Your task to perform on an android device: Toggle the flashlight Image 0: 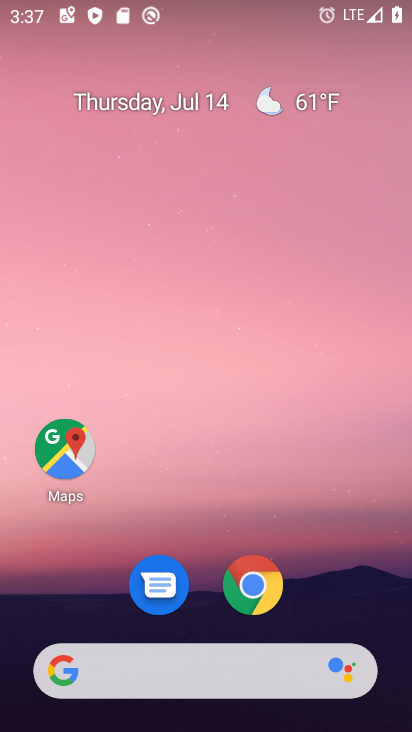
Step 0: drag from (332, 581) to (316, 27)
Your task to perform on an android device: Toggle the flashlight Image 1: 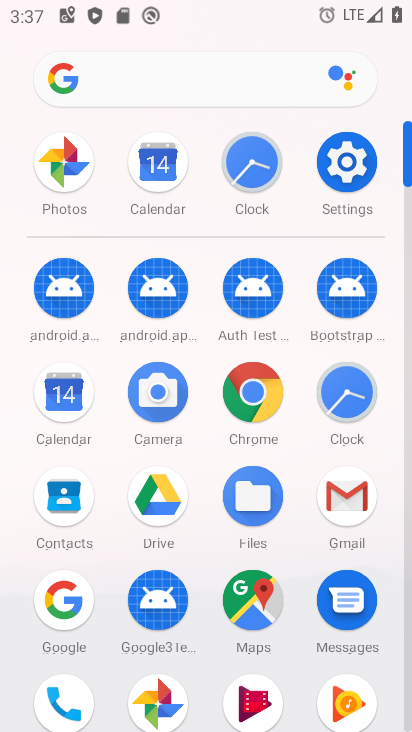
Step 1: click (347, 173)
Your task to perform on an android device: Toggle the flashlight Image 2: 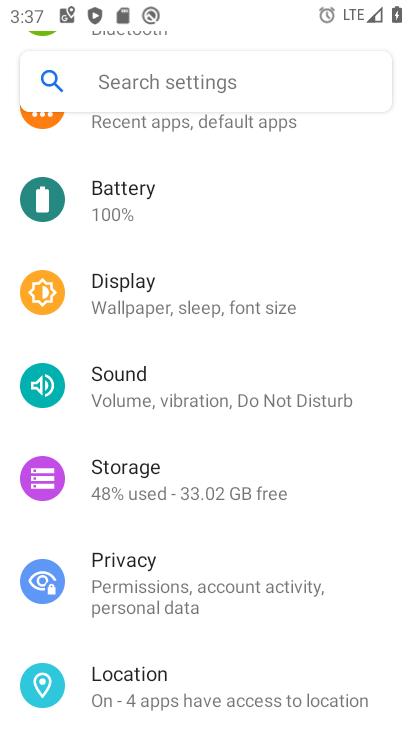
Step 2: drag from (223, 229) to (207, 681)
Your task to perform on an android device: Toggle the flashlight Image 3: 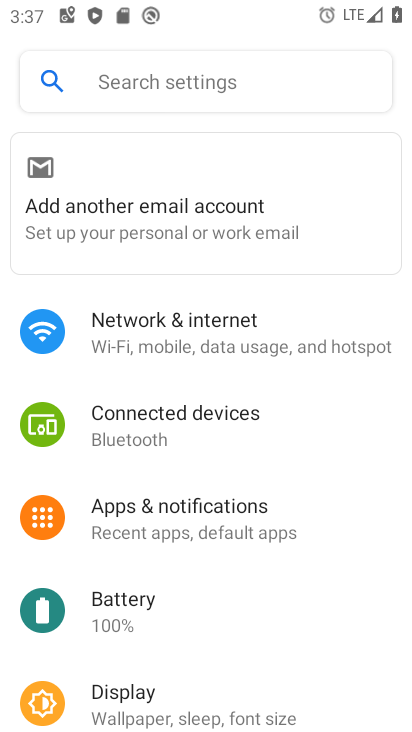
Step 3: click (233, 72)
Your task to perform on an android device: Toggle the flashlight Image 4: 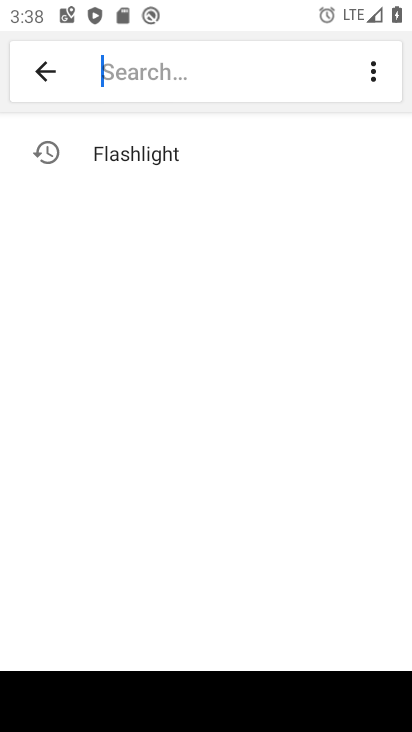
Step 4: click (163, 157)
Your task to perform on an android device: Toggle the flashlight Image 5: 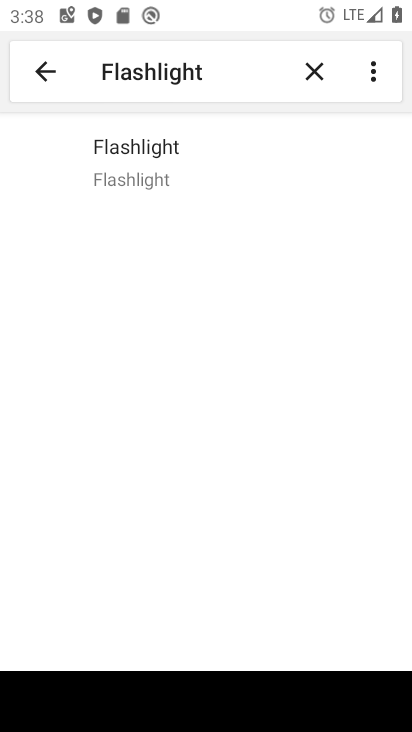
Step 5: click (162, 154)
Your task to perform on an android device: Toggle the flashlight Image 6: 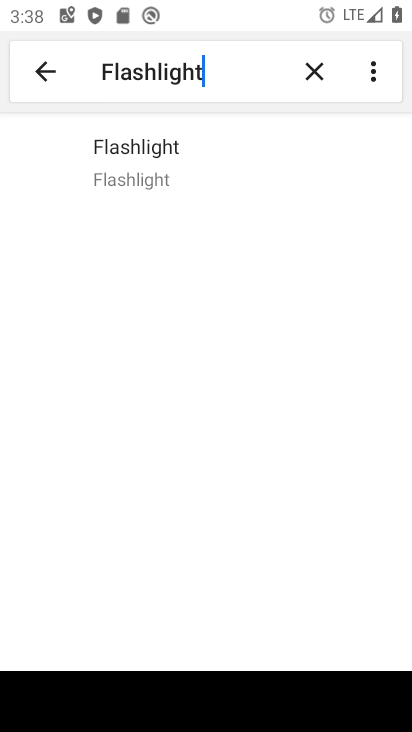
Step 6: task complete